Your task to perform on an android device: visit the assistant section in the google photos Image 0: 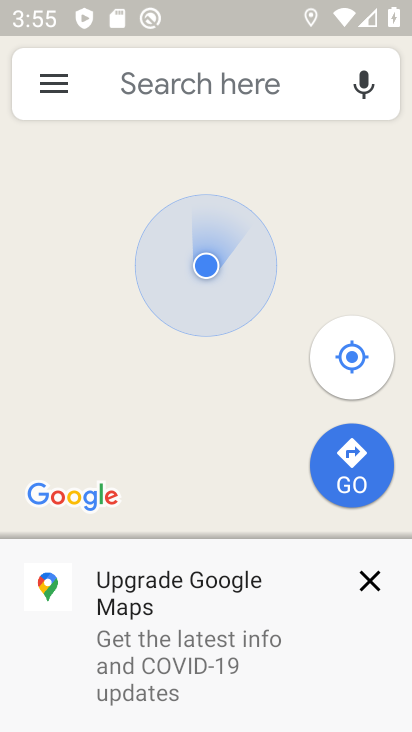
Step 0: press back button
Your task to perform on an android device: visit the assistant section in the google photos Image 1: 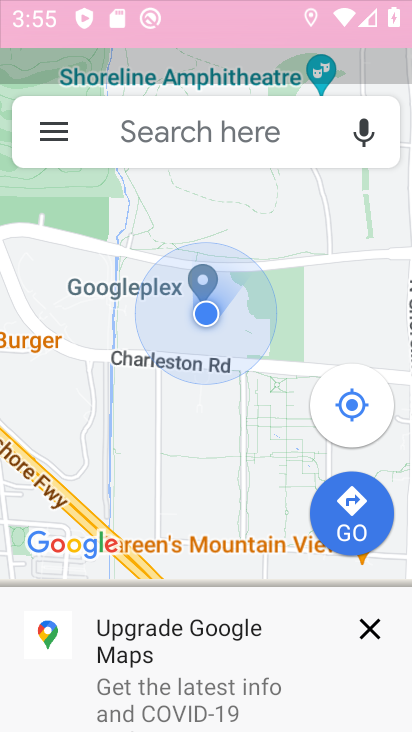
Step 1: click (397, 298)
Your task to perform on an android device: visit the assistant section in the google photos Image 2: 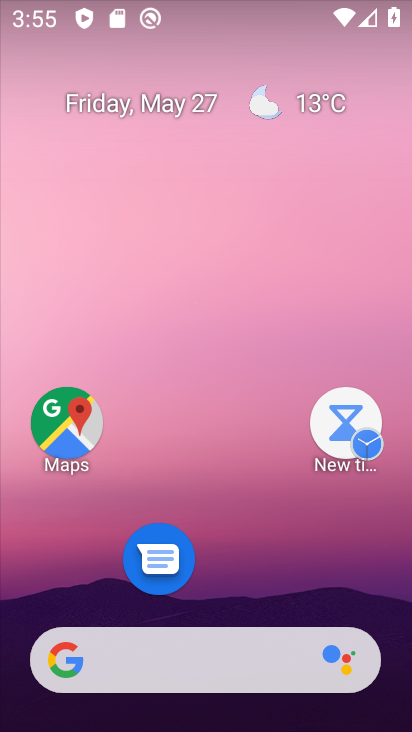
Step 2: drag from (140, 117) to (130, 54)
Your task to perform on an android device: visit the assistant section in the google photos Image 3: 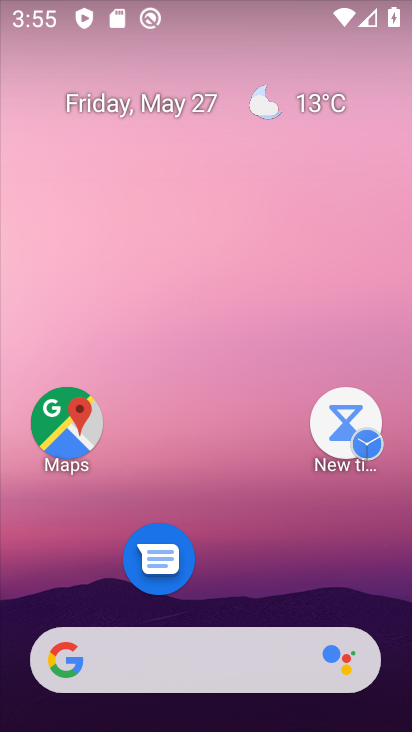
Step 3: drag from (252, 559) to (167, 46)
Your task to perform on an android device: visit the assistant section in the google photos Image 4: 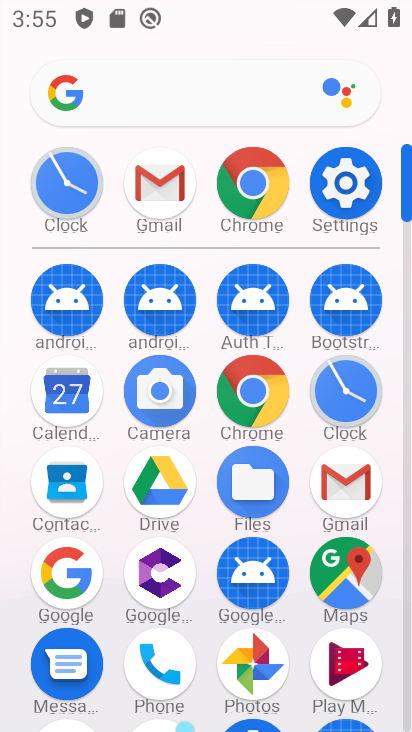
Step 4: click (233, 649)
Your task to perform on an android device: visit the assistant section in the google photos Image 5: 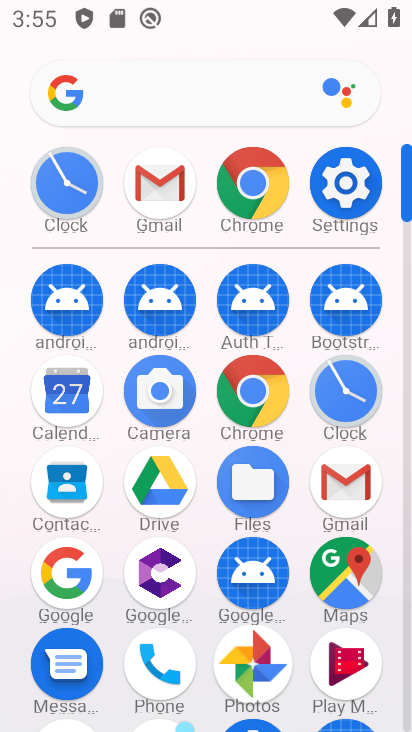
Step 5: click (259, 657)
Your task to perform on an android device: visit the assistant section in the google photos Image 6: 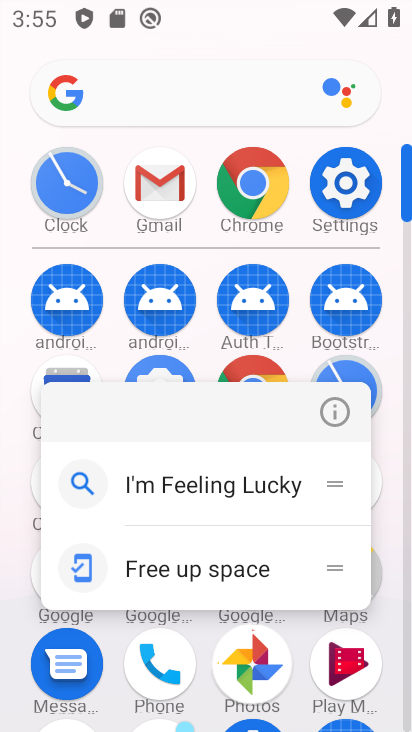
Step 6: click (256, 661)
Your task to perform on an android device: visit the assistant section in the google photos Image 7: 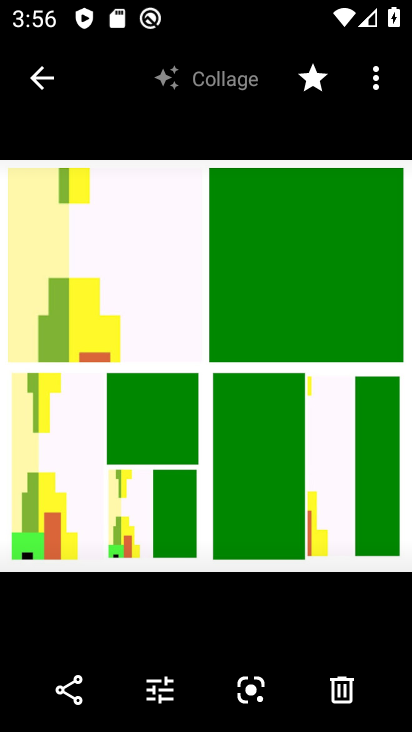
Step 7: click (38, 74)
Your task to perform on an android device: visit the assistant section in the google photos Image 8: 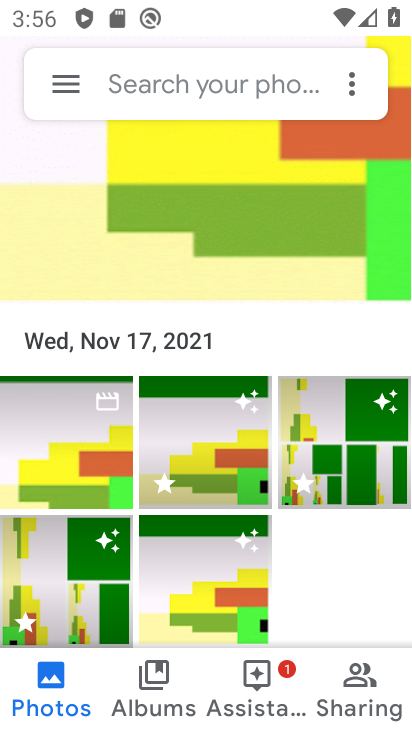
Step 8: click (35, 81)
Your task to perform on an android device: visit the assistant section in the google photos Image 9: 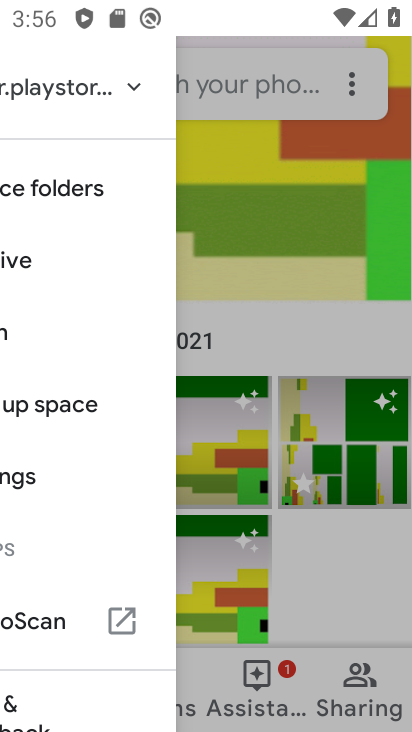
Step 9: click (35, 81)
Your task to perform on an android device: visit the assistant section in the google photos Image 10: 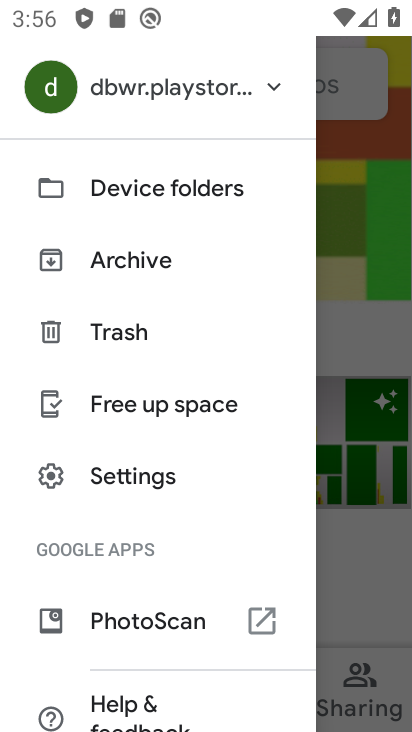
Step 10: click (338, 544)
Your task to perform on an android device: visit the assistant section in the google photos Image 11: 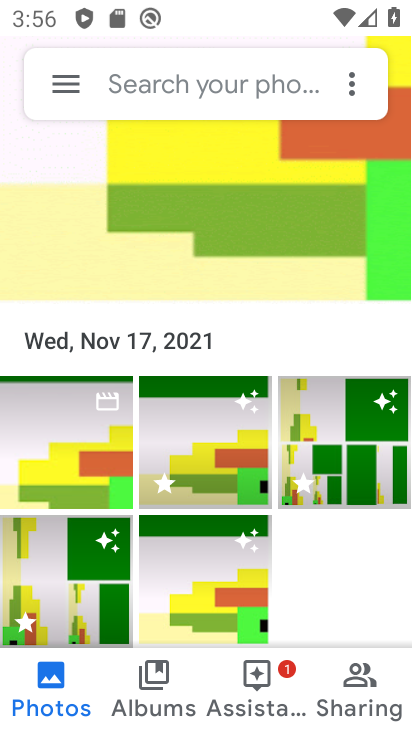
Step 11: click (240, 695)
Your task to perform on an android device: visit the assistant section in the google photos Image 12: 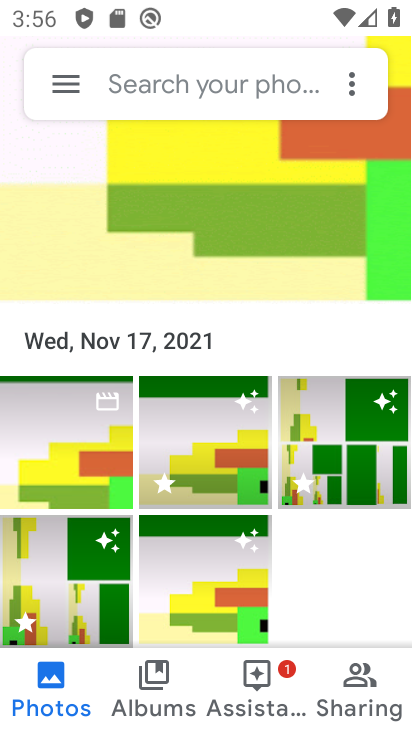
Step 12: click (240, 698)
Your task to perform on an android device: visit the assistant section in the google photos Image 13: 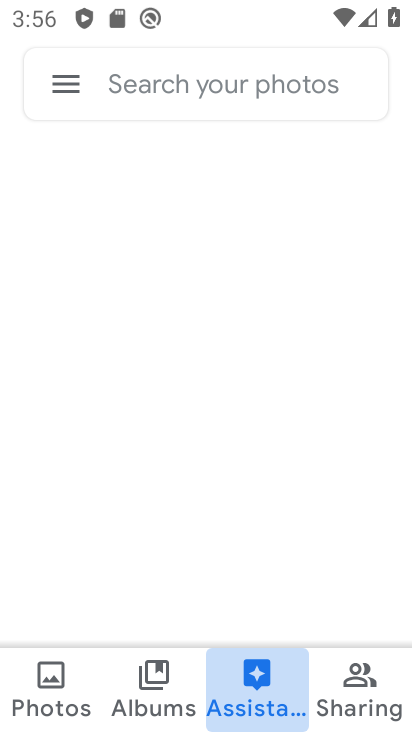
Step 13: click (246, 699)
Your task to perform on an android device: visit the assistant section in the google photos Image 14: 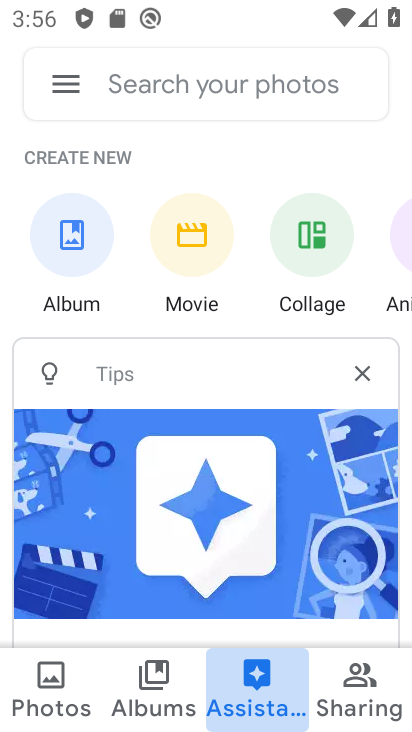
Step 14: click (263, 686)
Your task to perform on an android device: visit the assistant section in the google photos Image 15: 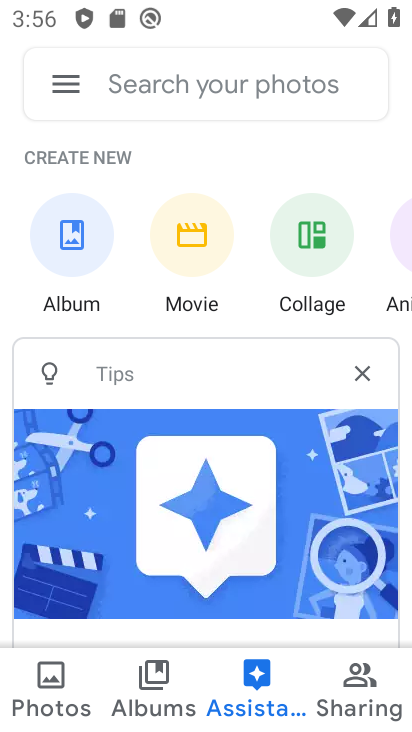
Step 15: click (260, 675)
Your task to perform on an android device: visit the assistant section in the google photos Image 16: 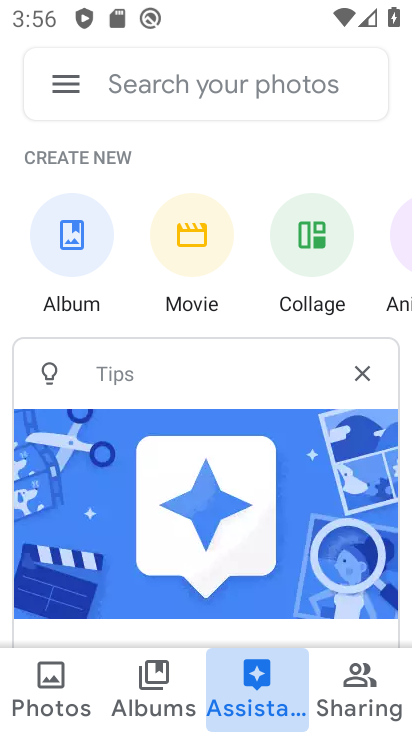
Step 16: click (259, 675)
Your task to perform on an android device: visit the assistant section in the google photos Image 17: 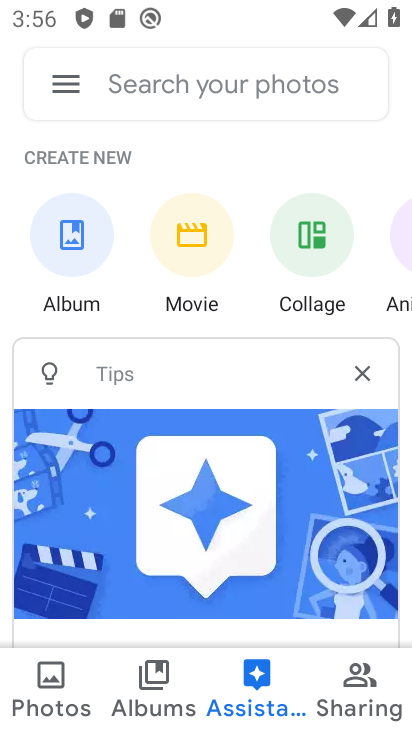
Step 17: click (258, 676)
Your task to perform on an android device: visit the assistant section in the google photos Image 18: 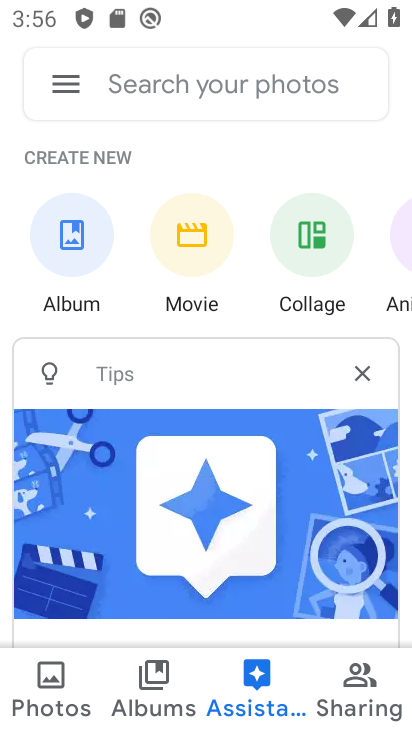
Step 18: task complete